Your task to perform on an android device: Open Android settings Image 0: 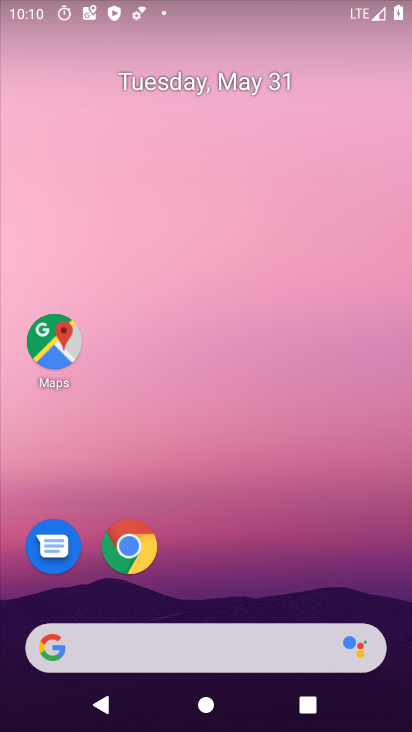
Step 0: drag from (266, 563) to (308, 70)
Your task to perform on an android device: Open Android settings Image 1: 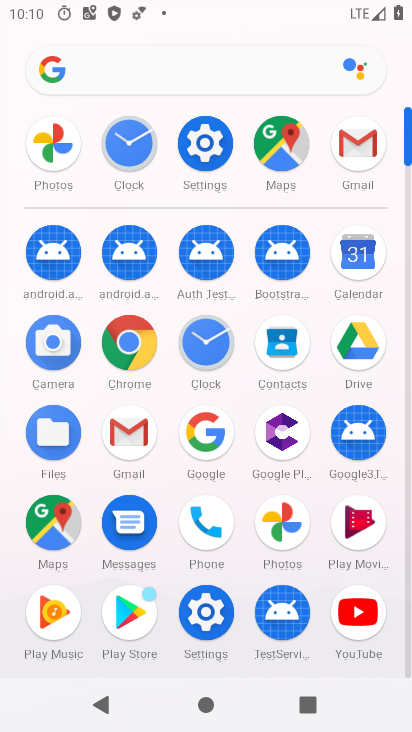
Step 1: click (185, 142)
Your task to perform on an android device: Open Android settings Image 2: 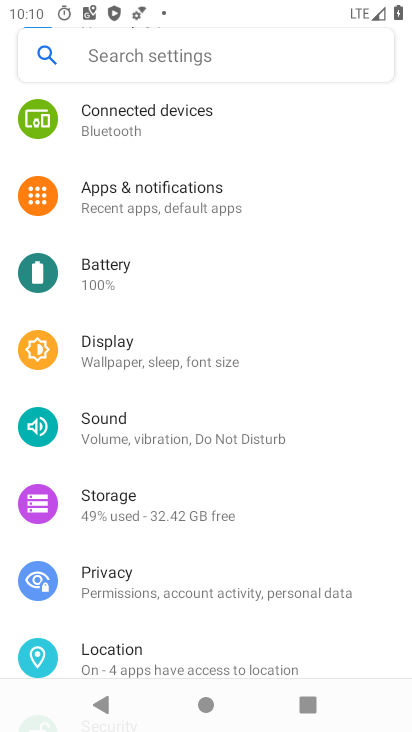
Step 2: task complete